Your task to perform on an android device: Go to eBay Image 0: 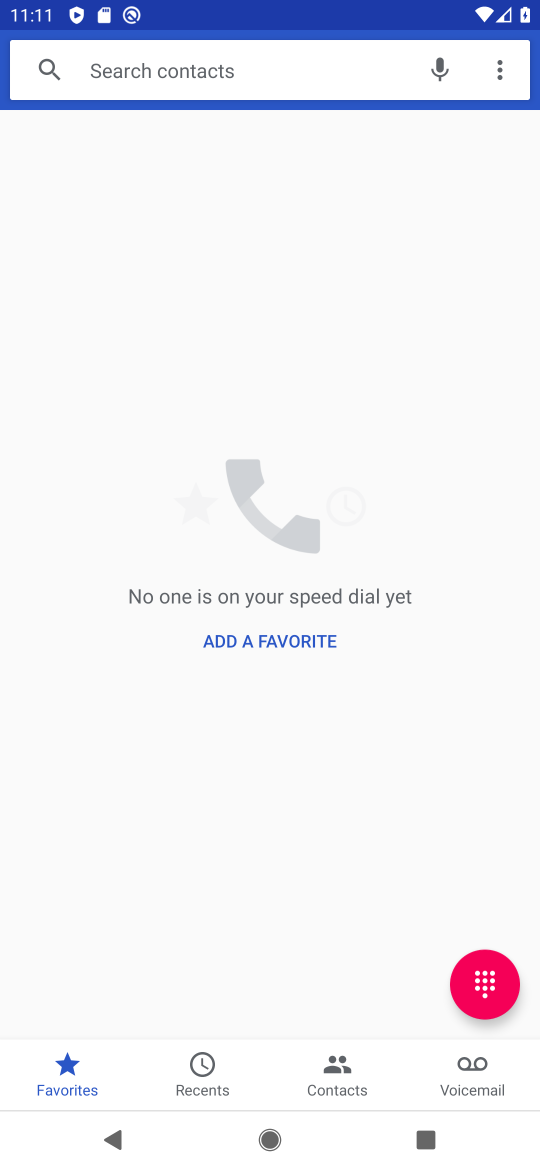
Step 0: press home button
Your task to perform on an android device: Go to eBay Image 1: 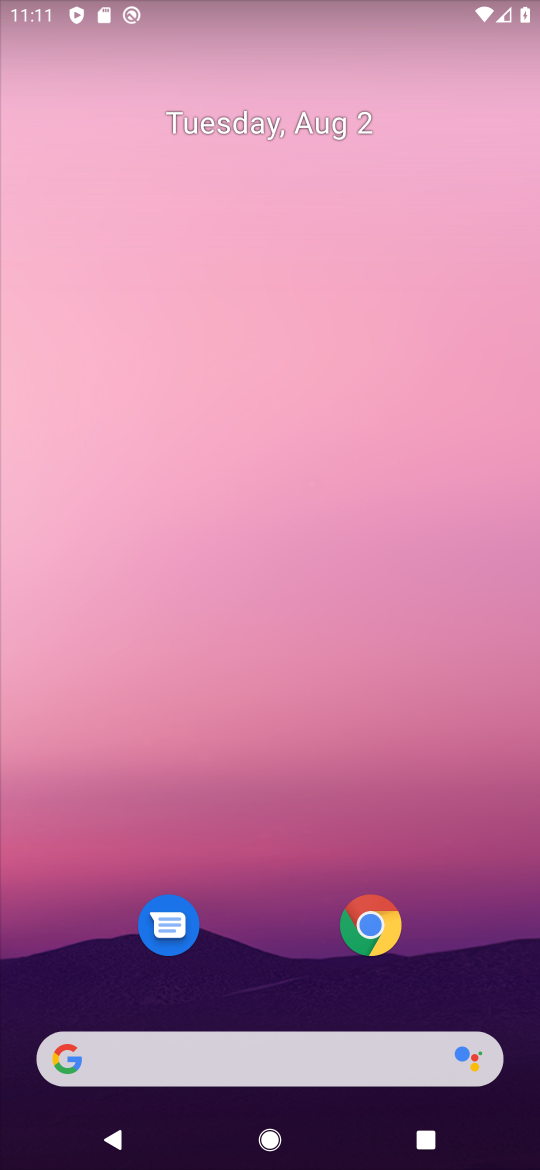
Step 1: click (378, 927)
Your task to perform on an android device: Go to eBay Image 2: 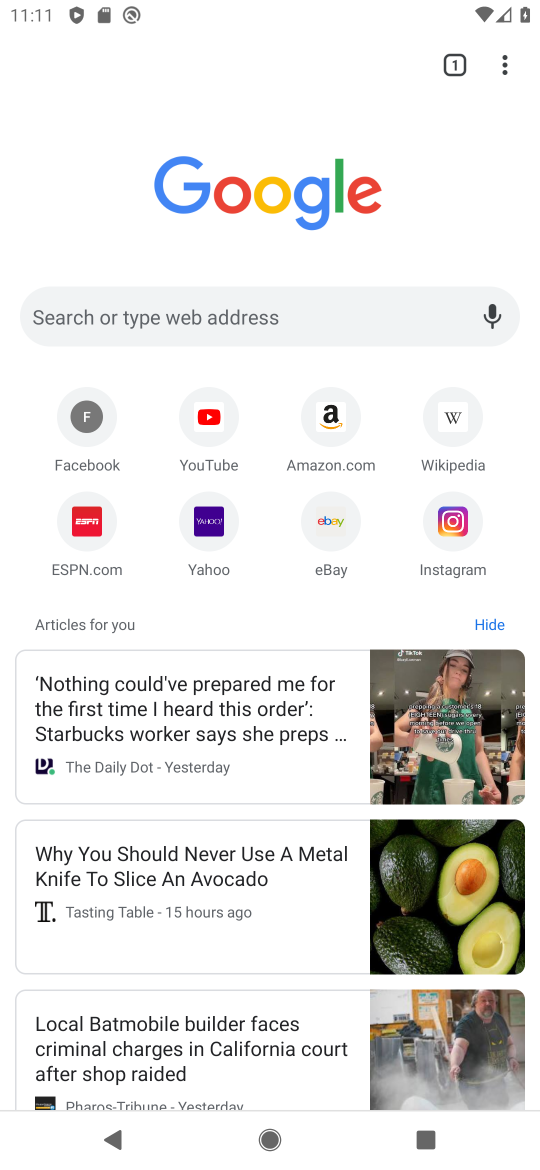
Step 2: click (334, 527)
Your task to perform on an android device: Go to eBay Image 3: 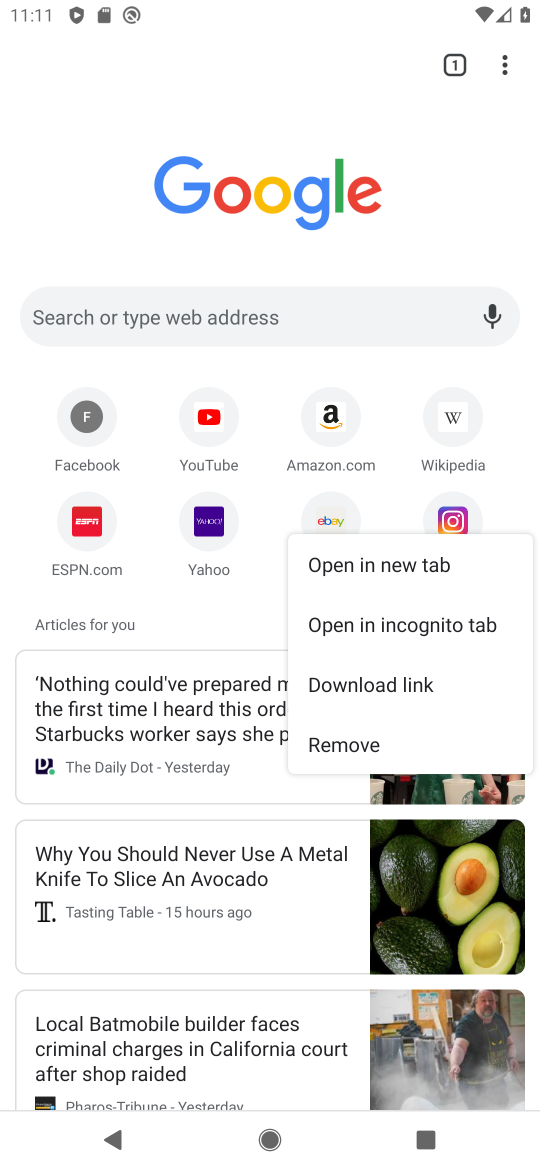
Step 3: click (325, 515)
Your task to perform on an android device: Go to eBay Image 4: 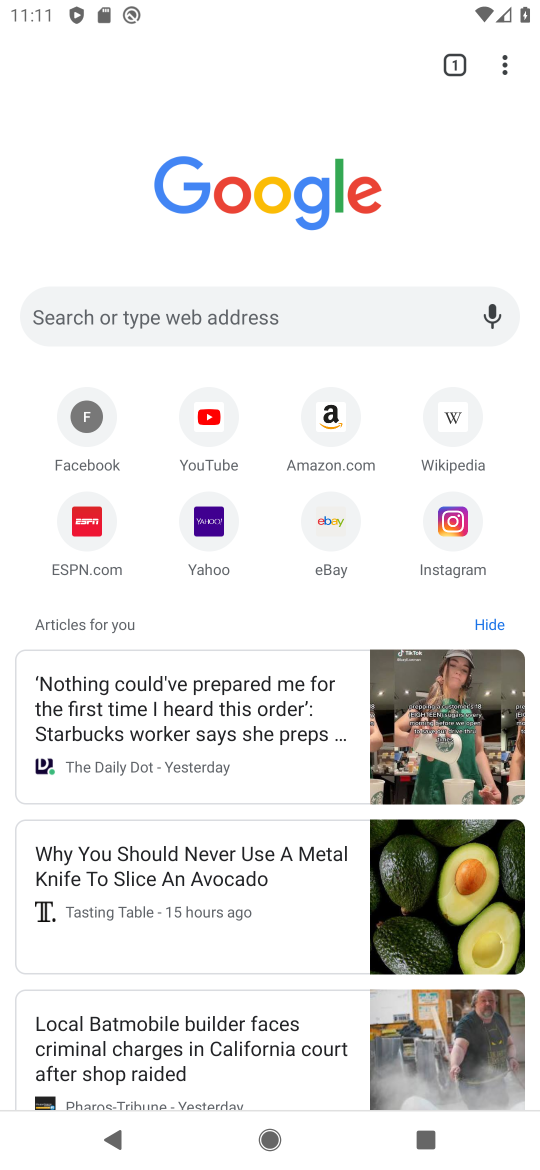
Step 4: click (327, 525)
Your task to perform on an android device: Go to eBay Image 5: 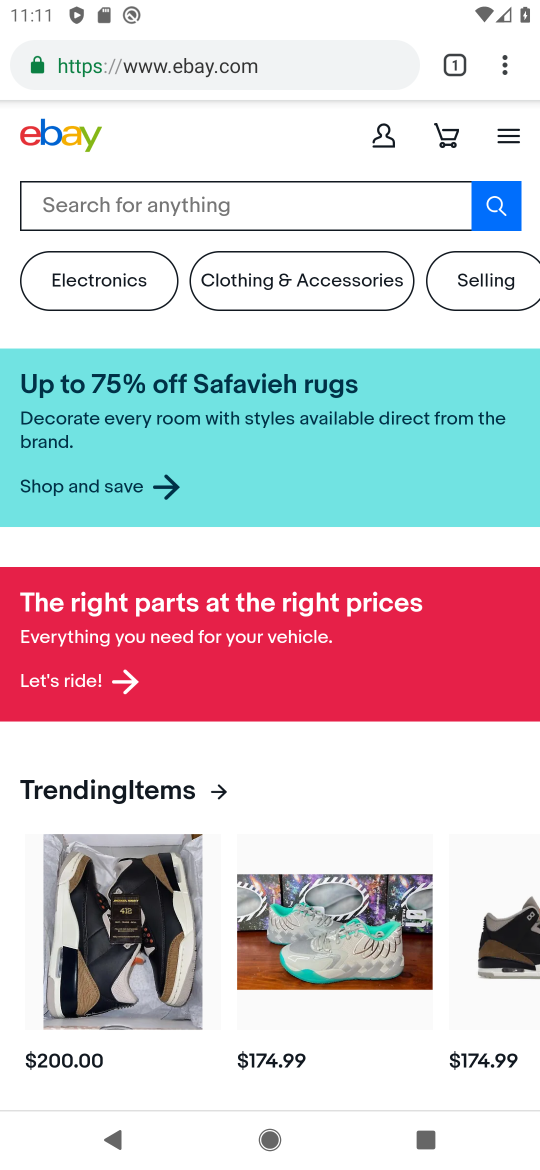
Step 5: task complete